Your task to perform on an android device: toggle priority inbox in the gmail app Image 0: 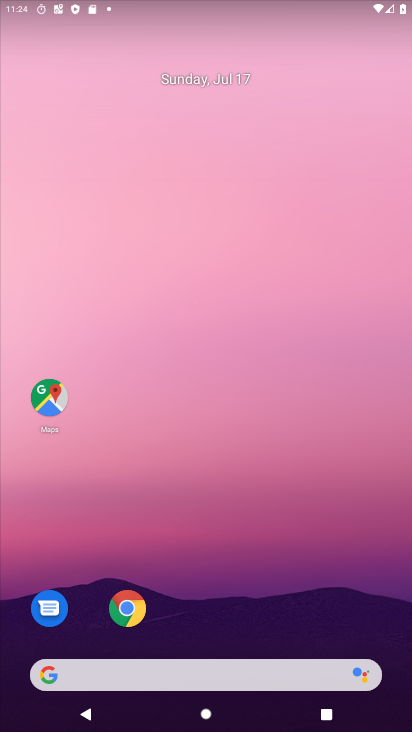
Step 0: drag from (235, 610) to (293, 12)
Your task to perform on an android device: toggle priority inbox in the gmail app Image 1: 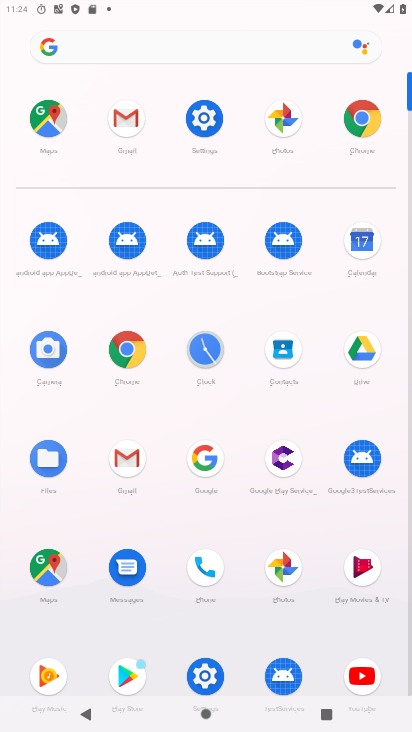
Step 1: click (120, 121)
Your task to perform on an android device: toggle priority inbox in the gmail app Image 2: 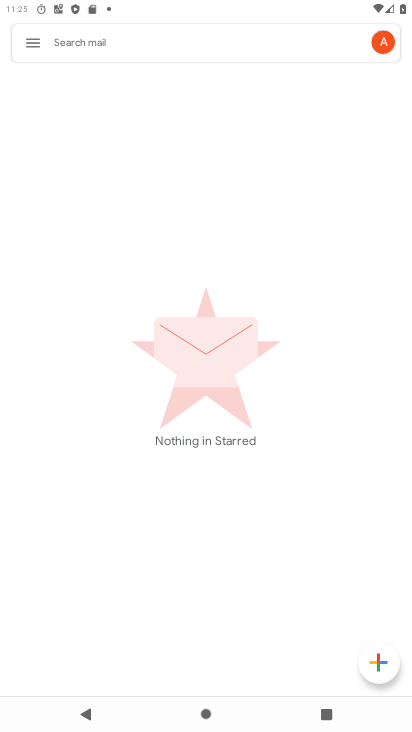
Step 2: click (29, 49)
Your task to perform on an android device: toggle priority inbox in the gmail app Image 3: 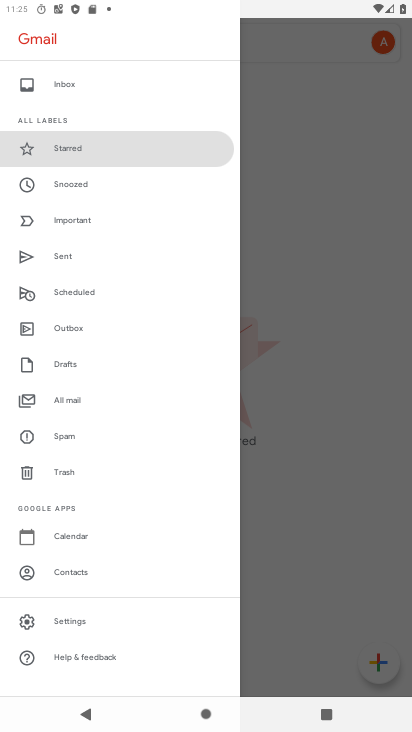
Step 3: click (83, 617)
Your task to perform on an android device: toggle priority inbox in the gmail app Image 4: 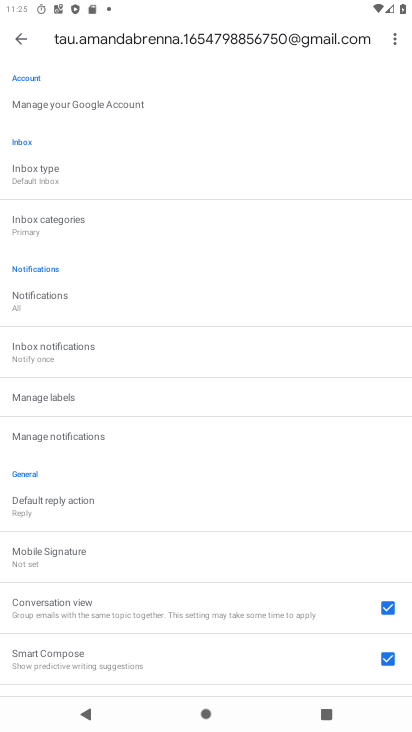
Step 4: click (67, 184)
Your task to perform on an android device: toggle priority inbox in the gmail app Image 5: 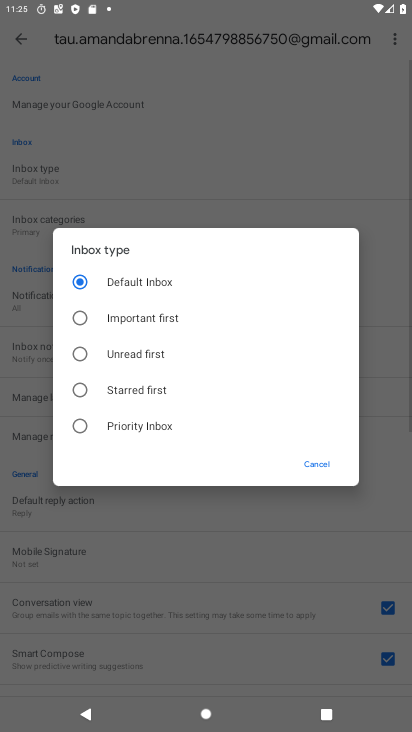
Step 5: click (122, 433)
Your task to perform on an android device: toggle priority inbox in the gmail app Image 6: 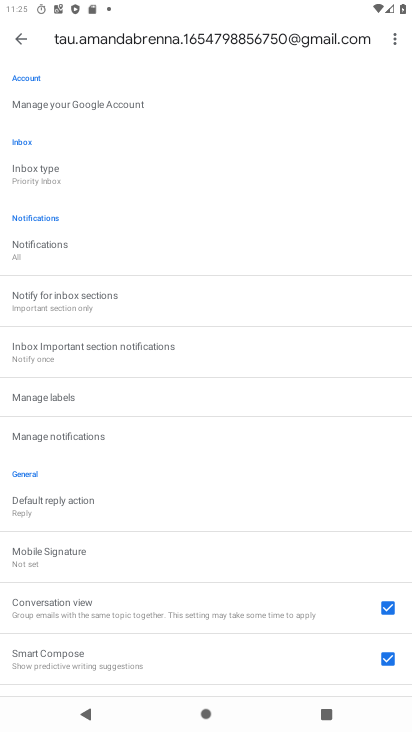
Step 6: task complete